Your task to perform on an android device: toggle improve location accuracy Image 0: 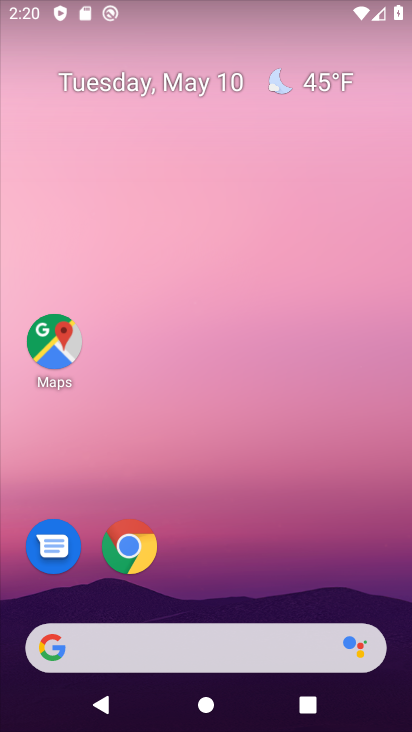
Step 0: drag from (248, 547) to (233, 9)
Your task to perform on an android device: toggle improve location accuracy Image 1: 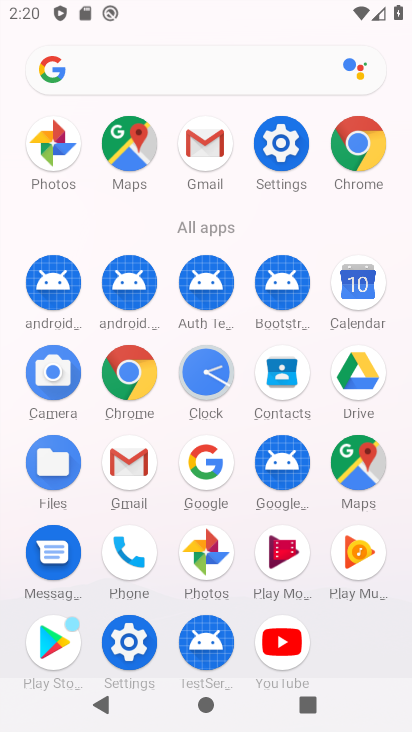
Step 1: drag from (3, 505) to (2, 272)
Your task to perform on an android device: toggle improve location accuracy Image 2: 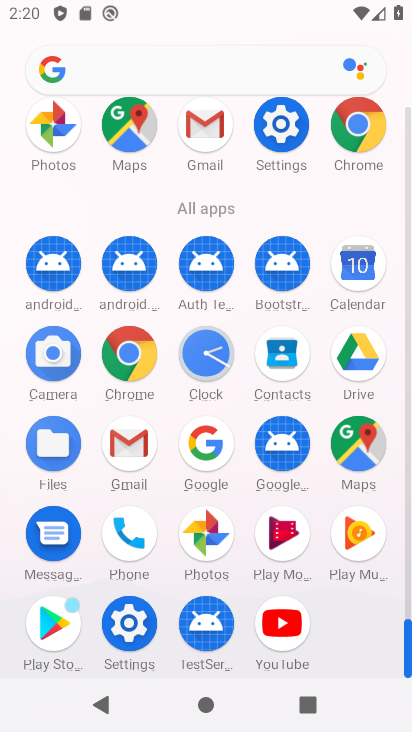
Step 2: click (128, 622)
Your task to perform on an android device: toggle improve location accuracy Image 3: 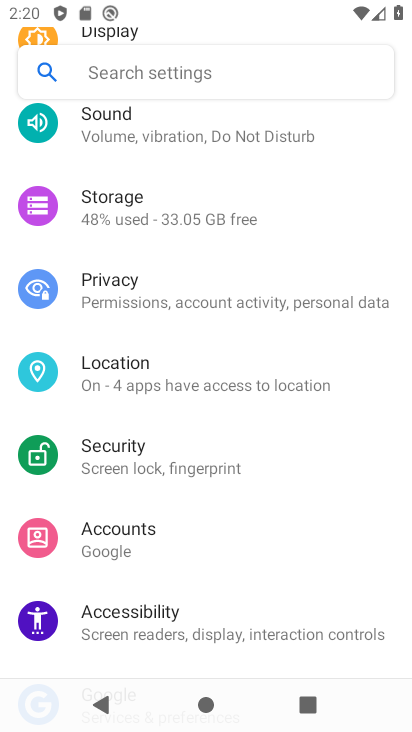
Step 3: click (171, 367)
Your task to perform on an android device: toggle improve location accuracy Image 4: 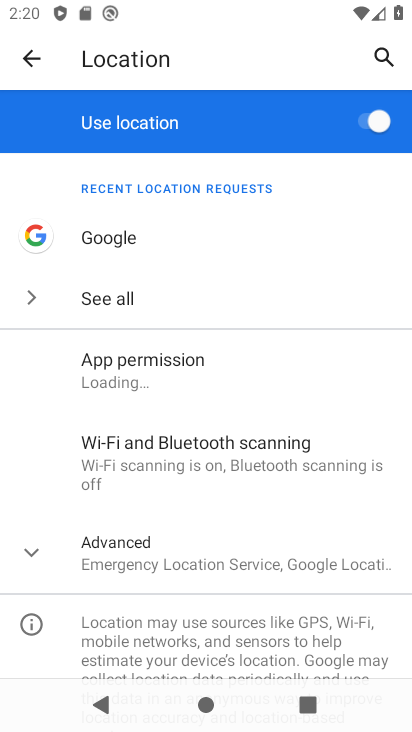
Step 4: click (171, 546)
Your task to perform on an android device: toggle improve location accuracy Image 5: 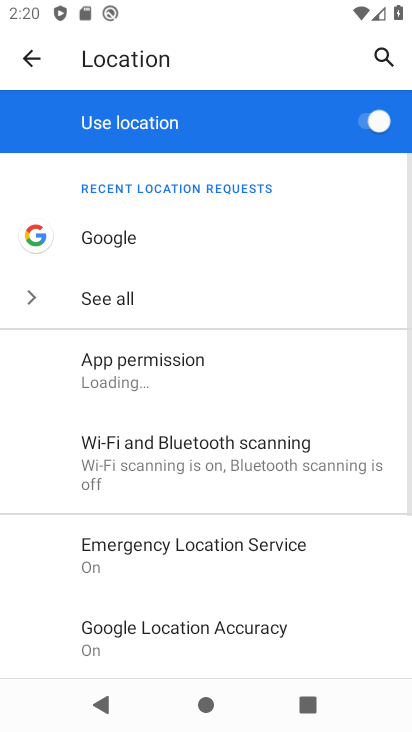
Step 5: drag from (231, 537) to (275, 217)
Your task to perform on an android device: toggle improve location accuracy Image 6: 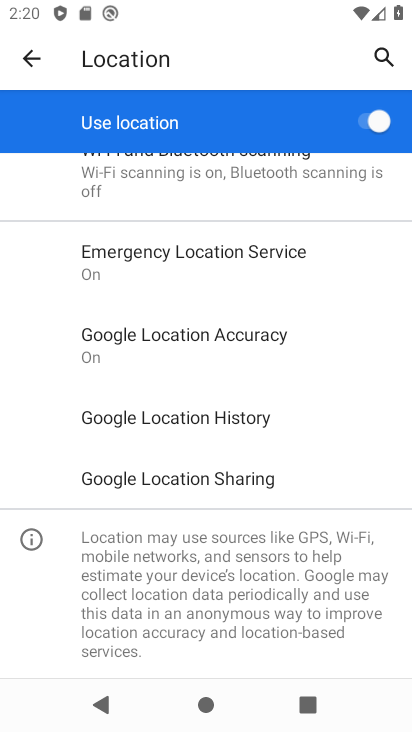
Step 6: click (216, 352)
Your task to perform on an android device: toggle improve location accuracy Image 7: 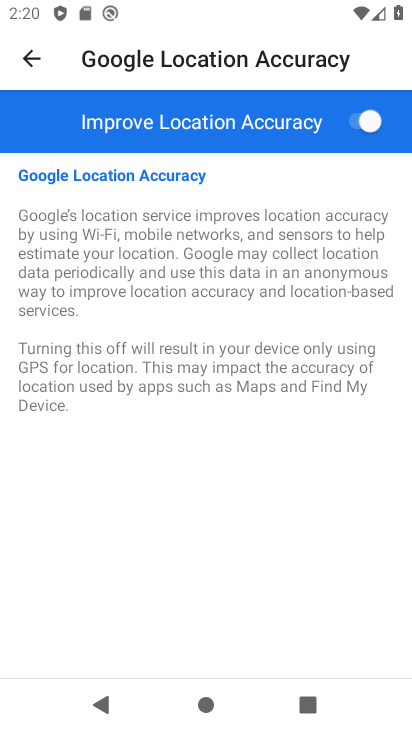
Step 7: click (348, 114)
Your task to perform on an android device: toggle improve location accuracy Image 8: 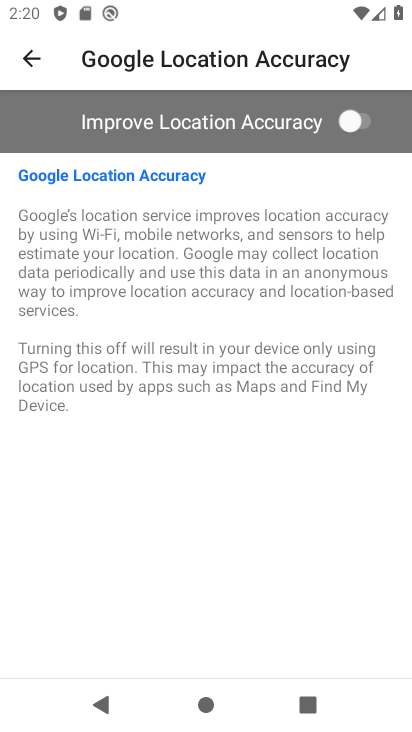
Step 8: task complete